Your task to perform on an android device: delete a single message in the gmail app Image 0: 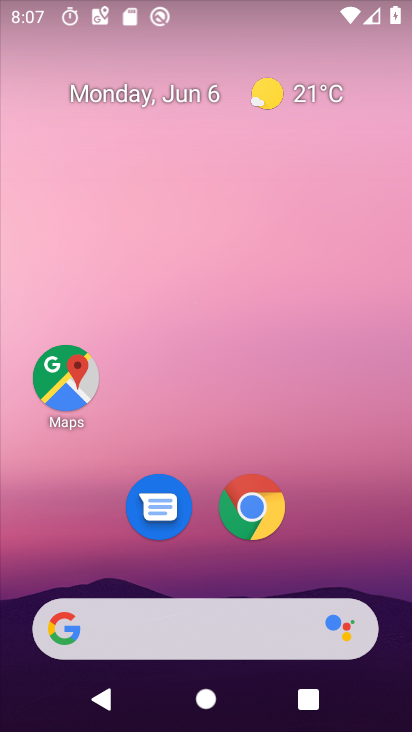
Step 0: press home button
Your task to perform on an android device: delete a single message in the gmail app Image 1: 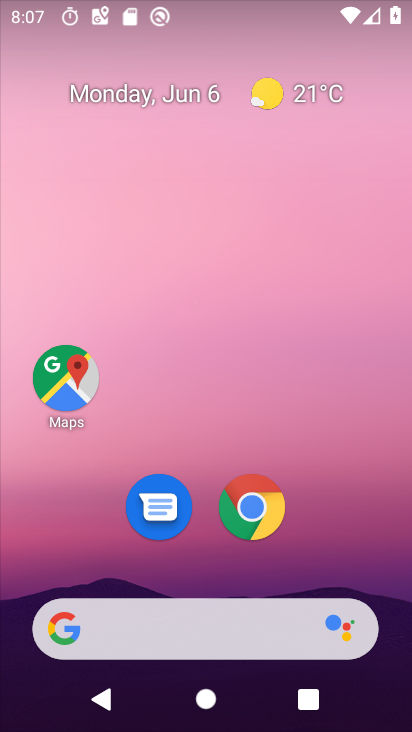
Step 1: drag from (356, 581) to (320, 68)
Your task to perform on an android device: delete a single message in the gmail app Image 2: 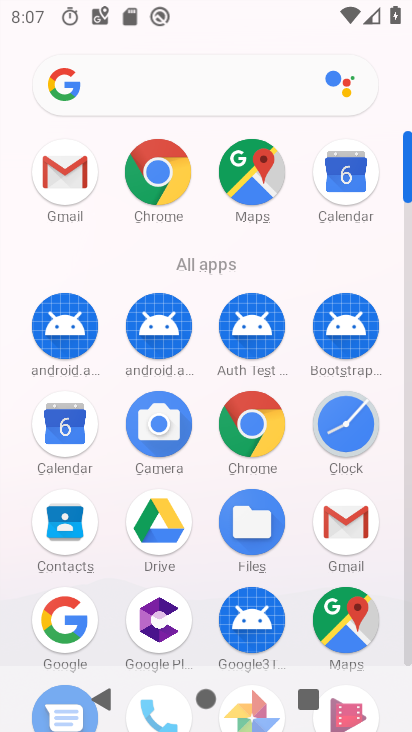
Step 2: click (31, 179)
Your task to perform on an android device: delete a single message in the gmail app Image 3: 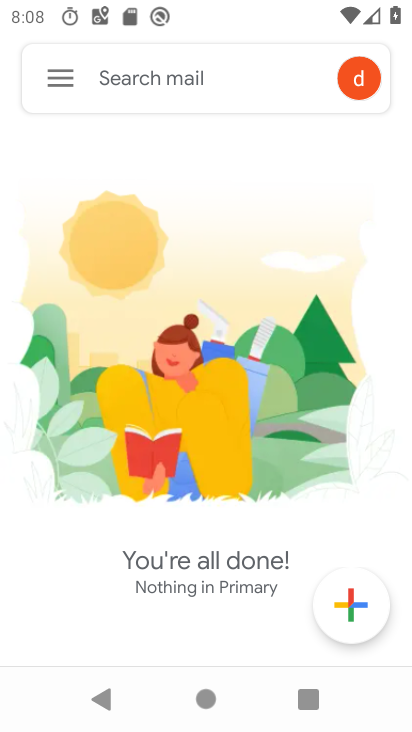
Step 3: task complete